Your task to perform on an android device: What's on my calendar tomorrow? Image 0: 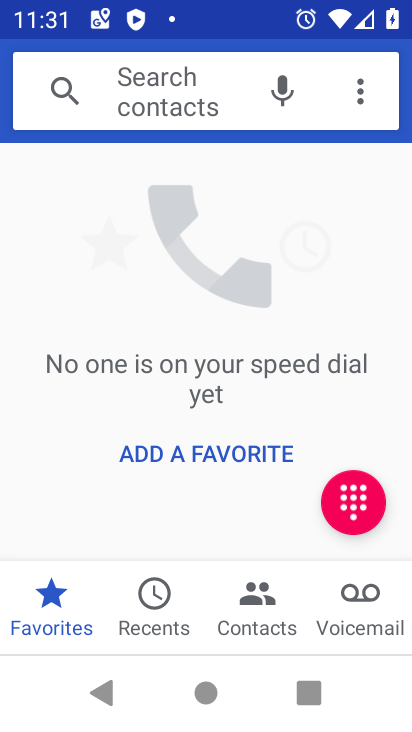
Step 0: press home button
Your task to perform on an android device: What's on my calendar tomorrow? Image 1: 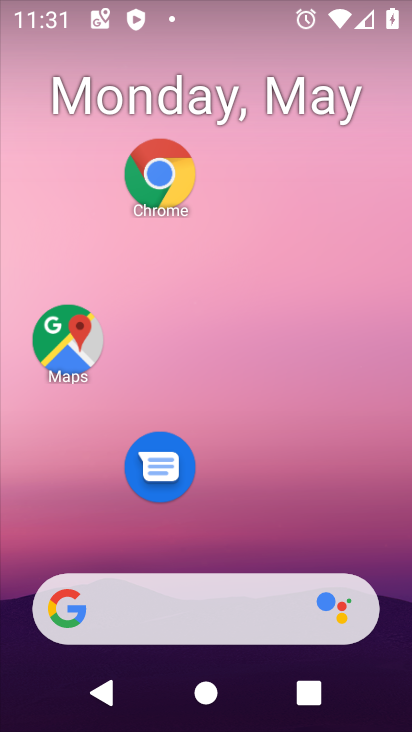
Step 1: drag from (307, 519) to (221, 13)
Your task to perform on an android device: What's on my calendar tomorrow? Image 2: 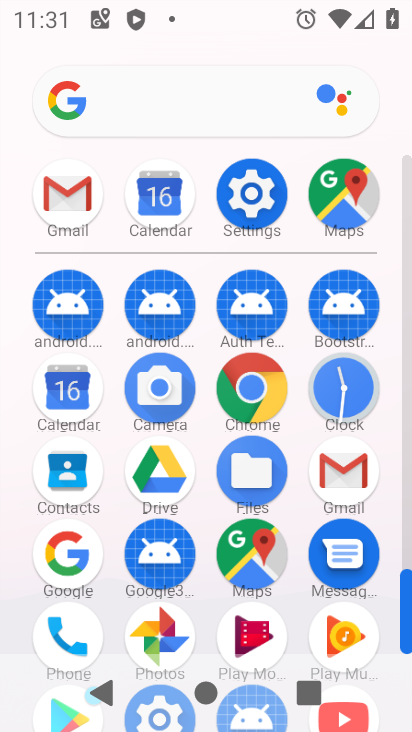
Step 2: click (271, 215)
Your task to perform on an android device: What's on my calendar tomorrow? Image 3: 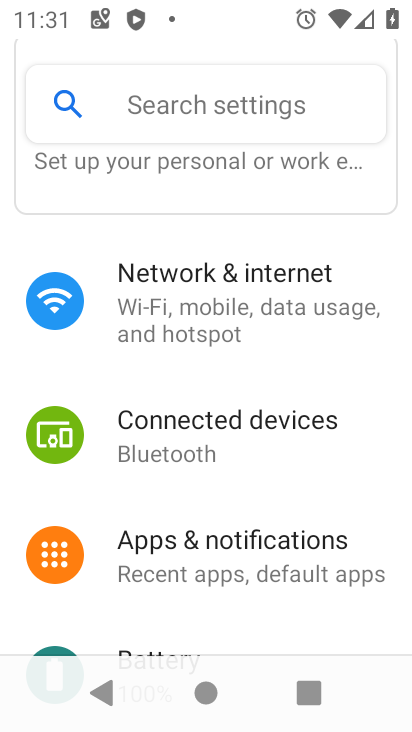
Step 3: press home button
Your task to perform on an android device: What's on my calendar tomorrow? Image 4: 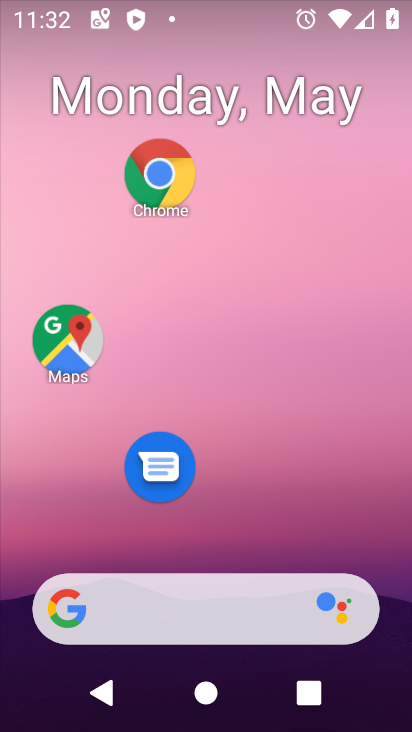
Step 4: drag from (335, 492) to (309, 91)
Your task to perform on an android device: What's on my calendar tomorrow? Image 5: 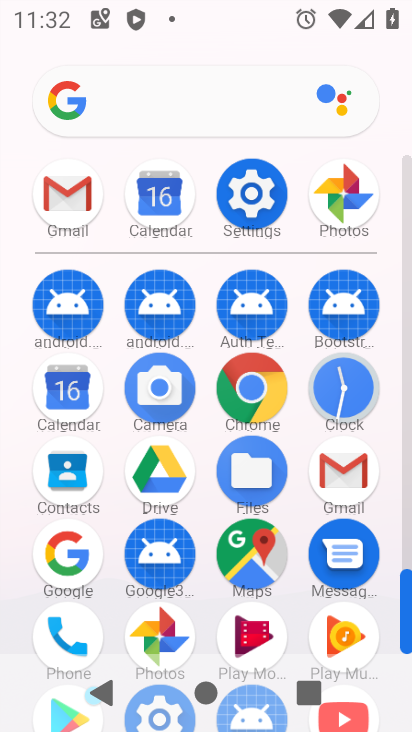
Step 5: click (73, 396)
Your task to perform on an android device: What's on my calendar tomorrow? Image 6: 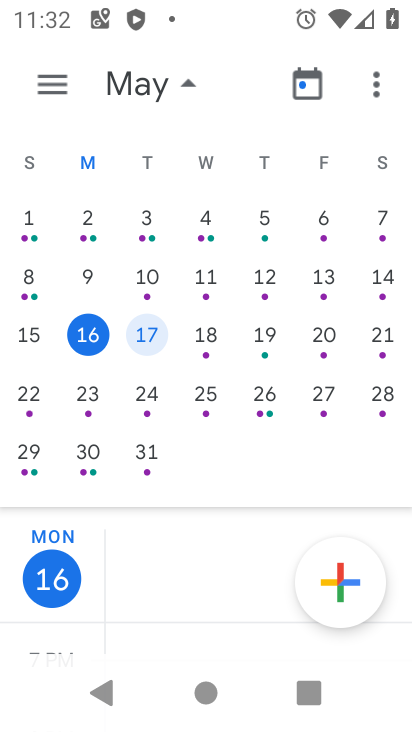
Step 6: click (153, 321)
Your task to perform on an android device: What's on my calendar tomorrow? Image 7: 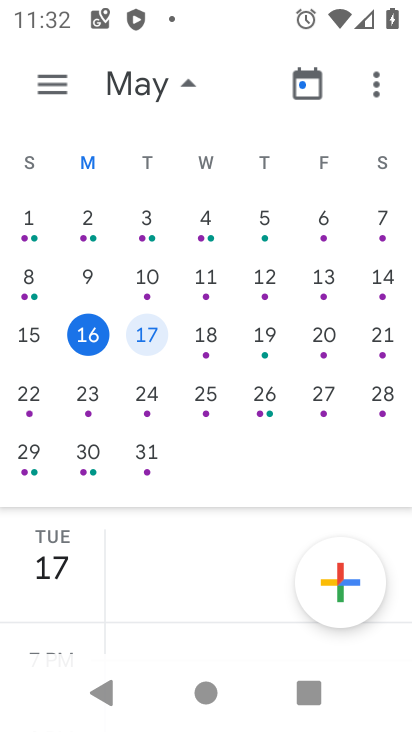
Step 7: task complete